Your task to perform on an android device: Open settings on Google Maps Image 0: 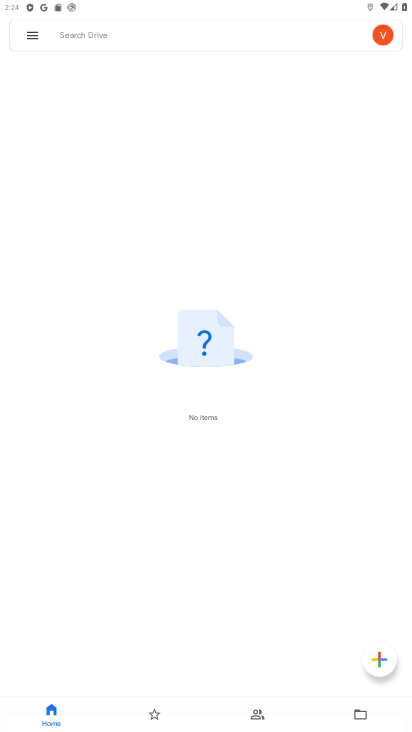
Step 0: press home button
Your task to perform on an android device: Open settings on Google Maps Image 1: 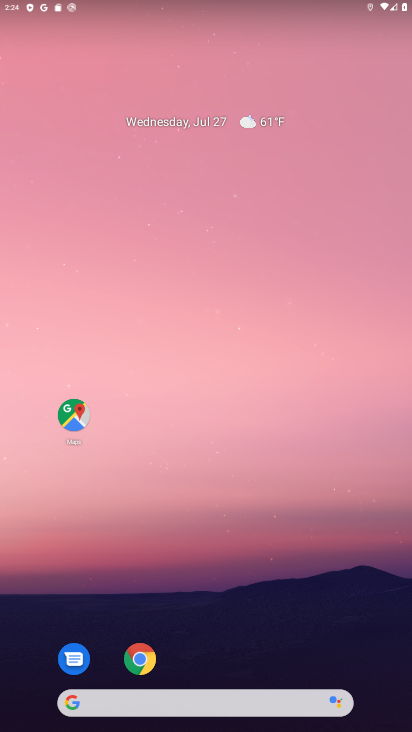
Step 1: click (71, 414)
Your task to perform on an android device: Open settings on Google Maps Image 2: 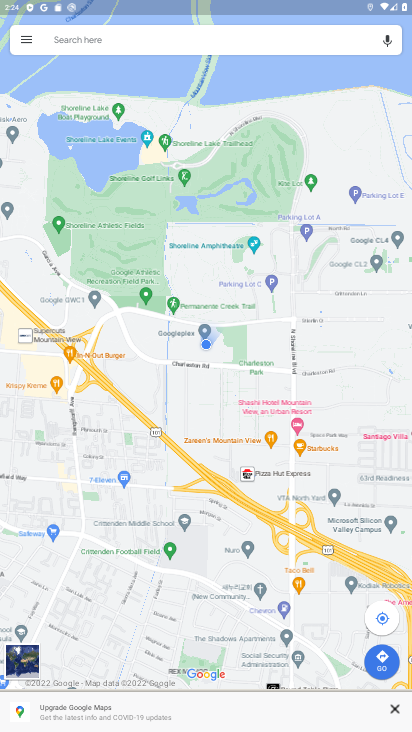
Step 2: click (27, 40)
Your task to perform on an android device: Open settings on Google Maps Image 3: 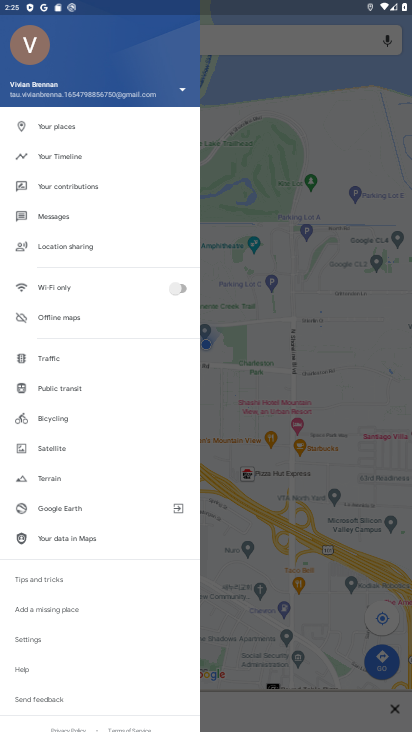
Step 3: click (22, 636)
Your task to perform on an android device: Open settings on Google Maps Image 4: 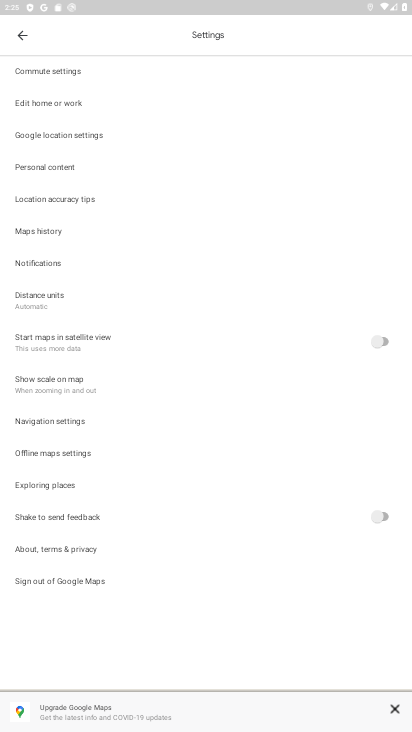
Step 4: task complete